Your task to perform on an android device: Go to Yahoo.com Image 0: 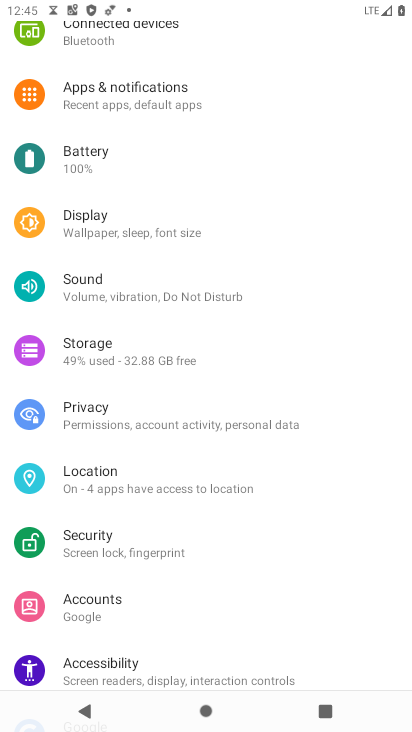
Step 0: press home button
Your task to perform on an android device: Go to Yahoo.com Image 1: 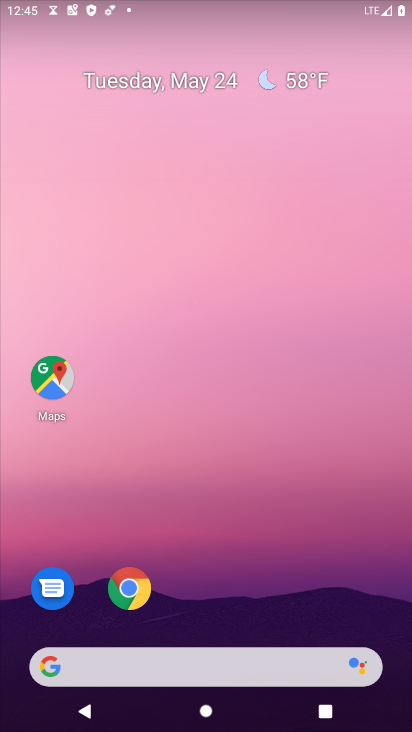
Step 1: click (130, 597)
Your task to perform on an android device: Go to Yahoo.com Image 2: 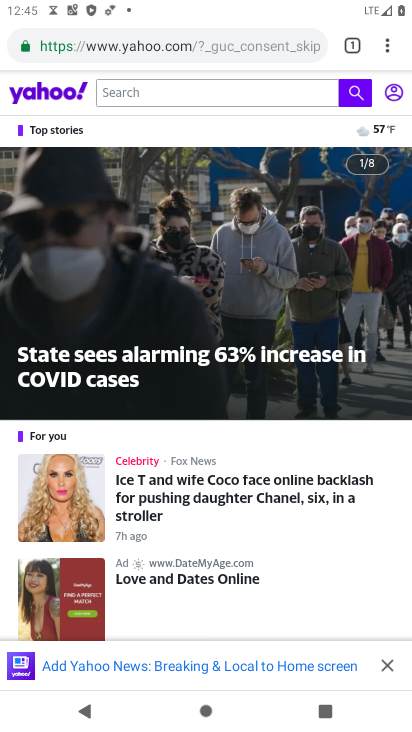
Step 2: click (181, 47)
Your task to perform on an android device: Go to Yahoo.com Image 3: 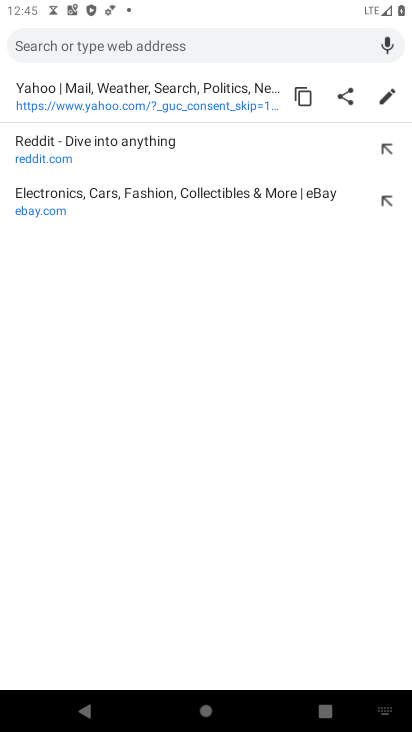
Step 3: task complete